Your task to perform on an android device: Play the last video I watched on Youtube Image 0: 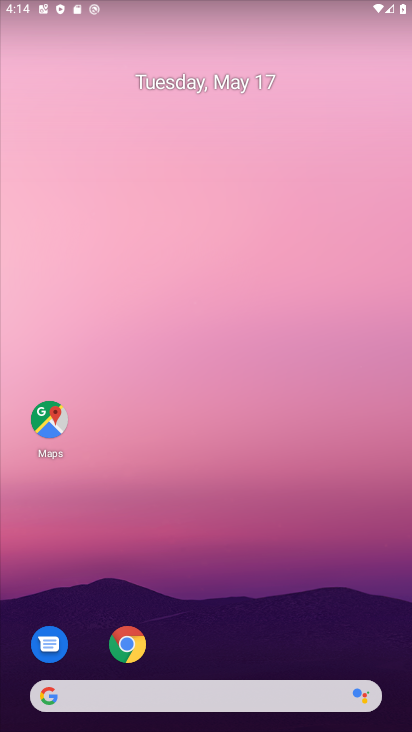
Step 0: drag from (217, 633) to (214, 322)
Your task to perform on an android device: Play the last video I watched on Youtube Image 1: 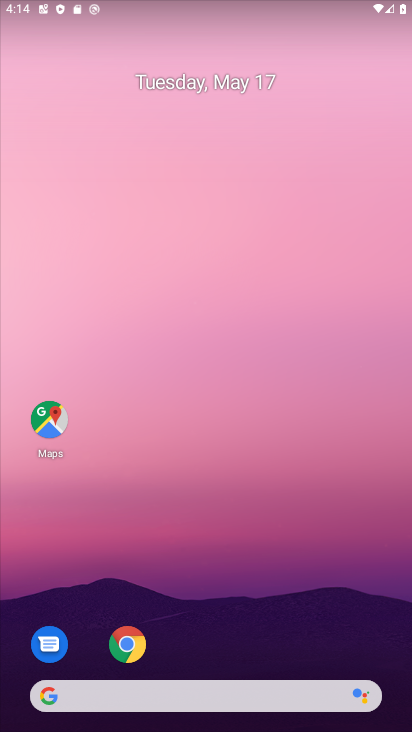
Step 1: drag from (238, 639) to (250, 293)
Your task to perform on an android device: Play the last video I watched on Youtube Image 2: 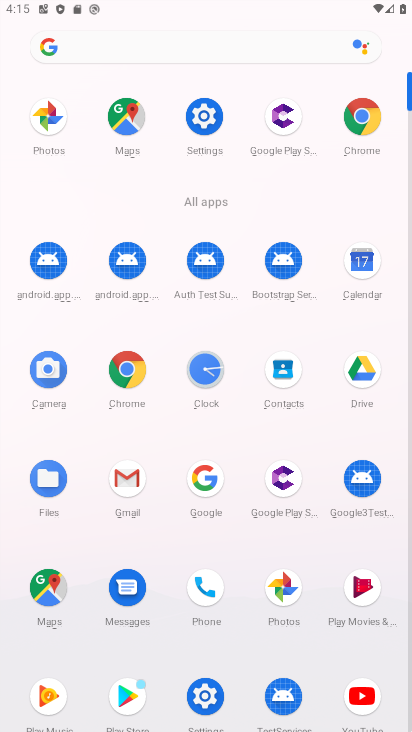
Step 2: click (373, 690)
Your task to perform on an android device: Play the last video I watched on Youtube Image 3: 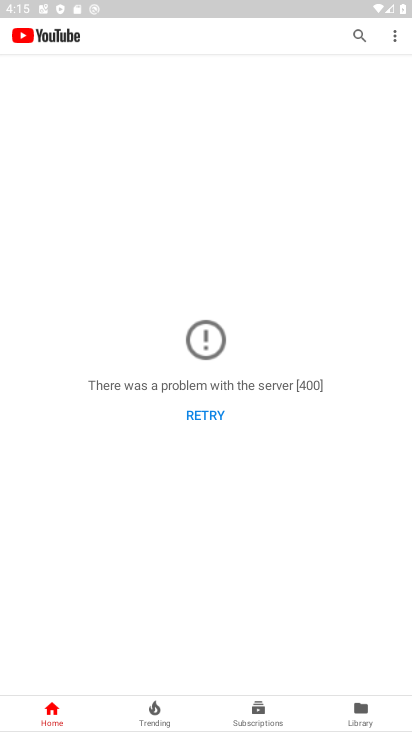
Step 3: task complete